Your task to perform on an android device: Open maps Image 0: 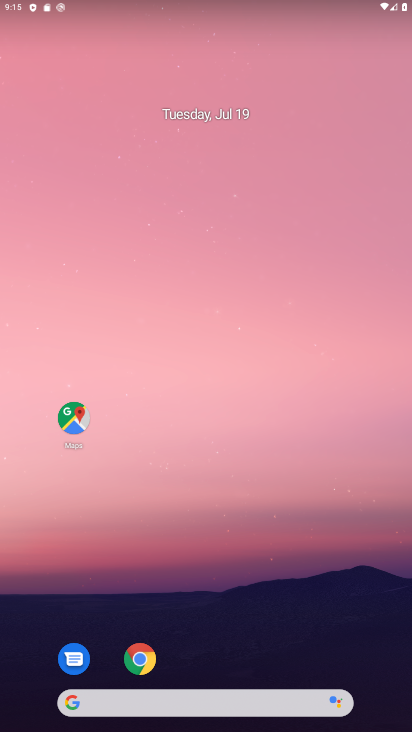
Step 0: drag from (236, 609) to (379, 102)
Your task to perform on an android device: Open maps Image 1: 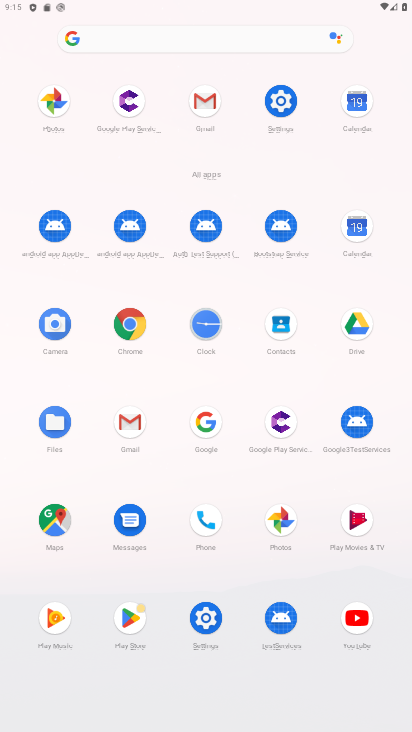
Step 1: click (44, 523)
Your task to perform on an android device: Open maps Image 2: 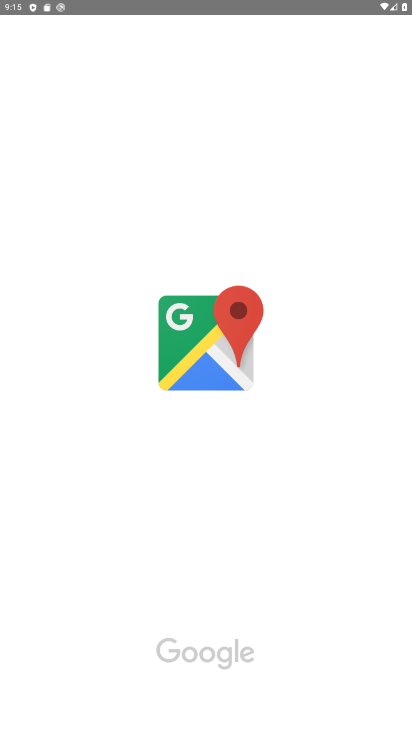
Step 2: task complete